Your task to perform on an android device: Go to network settings Image 0: 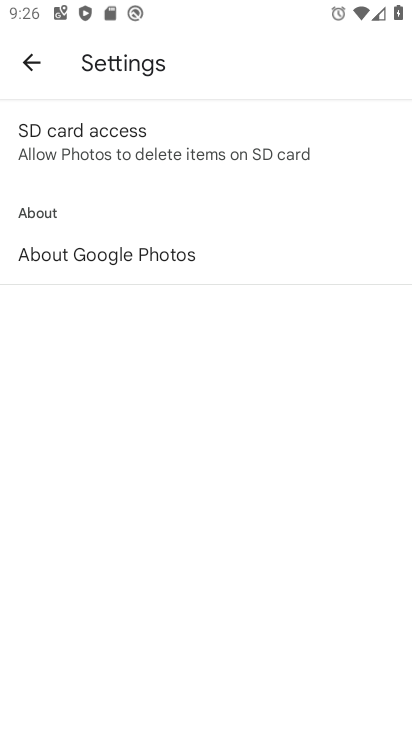
Step 0: drag from (175, 533) to (204, 81)
Your task to perform on an android device: Go to network settings Image 1: 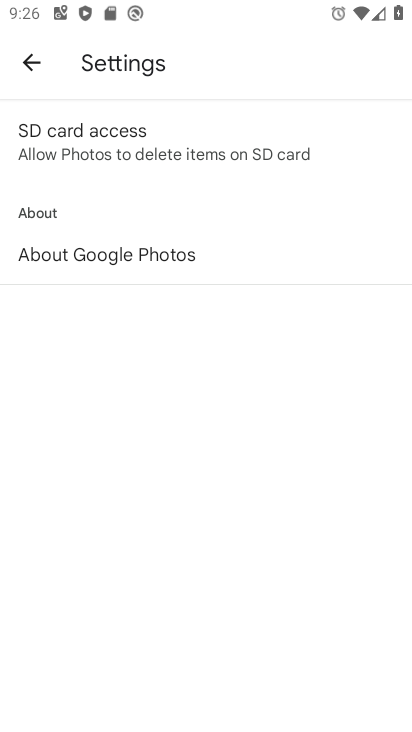
Step 1: press home button
Your task to perform on an android device: Go to network settings Image 2: 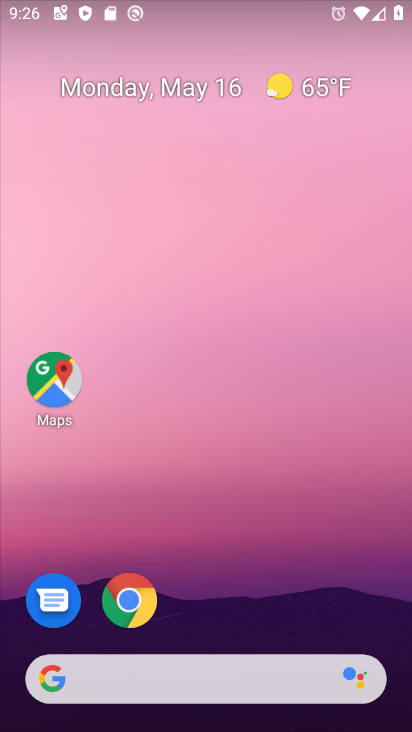
Step 2: drag from (210, 648) to (262, 135)
Your task to perform on an android device: Go to network settings Image 3: 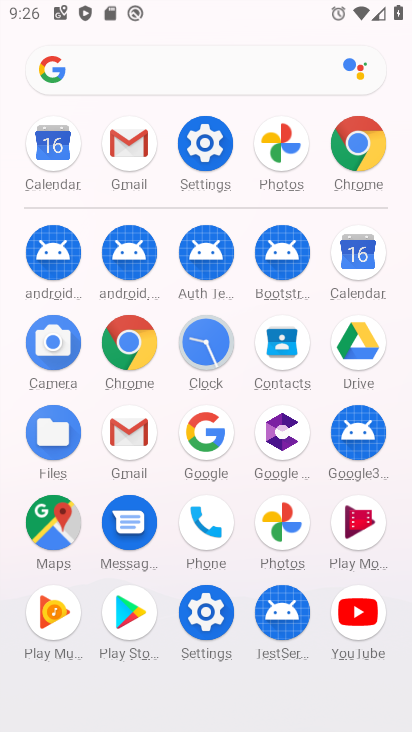
Step 3: click (204, 605)
Your task to perform on an android device: Go to network settings Image 4: 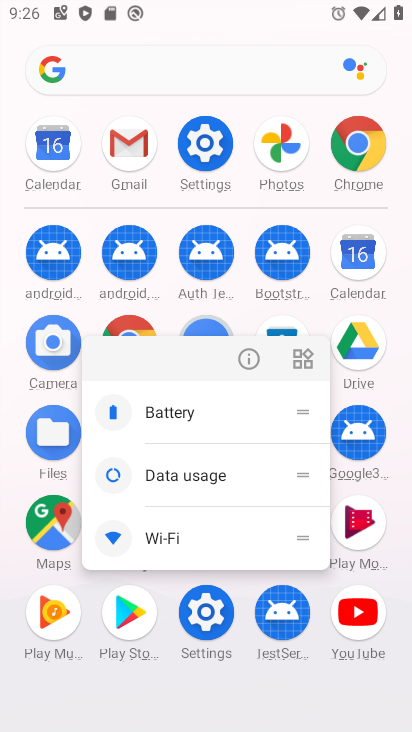
Step 4: click (245, 362)
Your task to perform on an android device: Go to network settings Image 5: 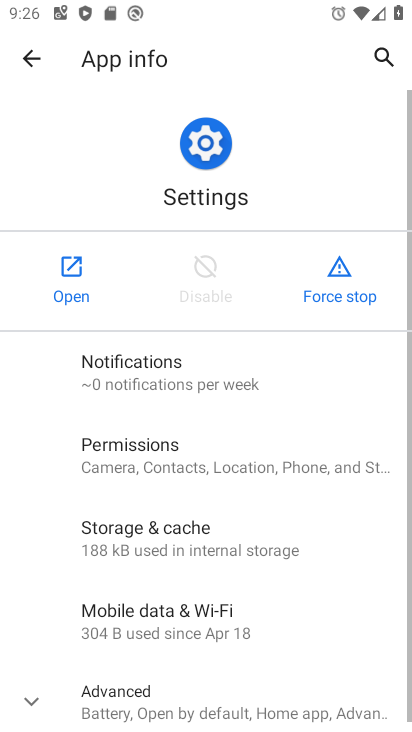
Step 5: click (70, 254)
Your task to perform on an android device: Go to network settings Image 6: 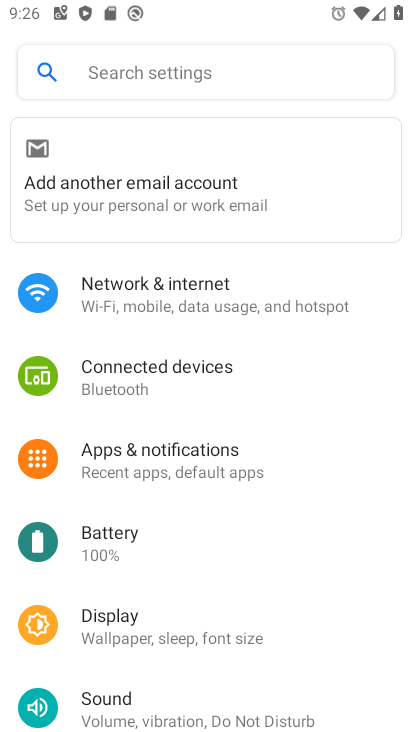
Step 6: click (191, 295)
Your task to perform on an android device: Go to network settings Image 7: 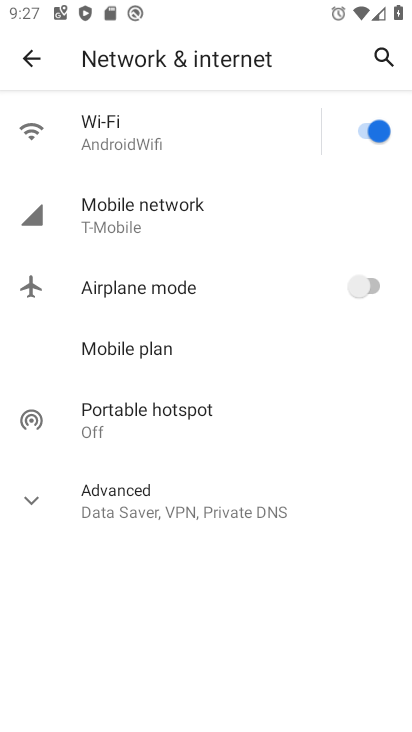
Step 7: task complete